Your task to perform on an android device: check android version Image 0: 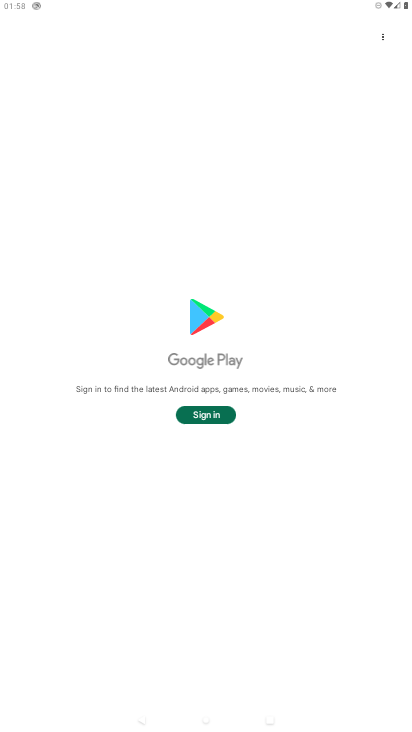
Step 0: press home button
Your task to perform on an android device: check android version Image 1: 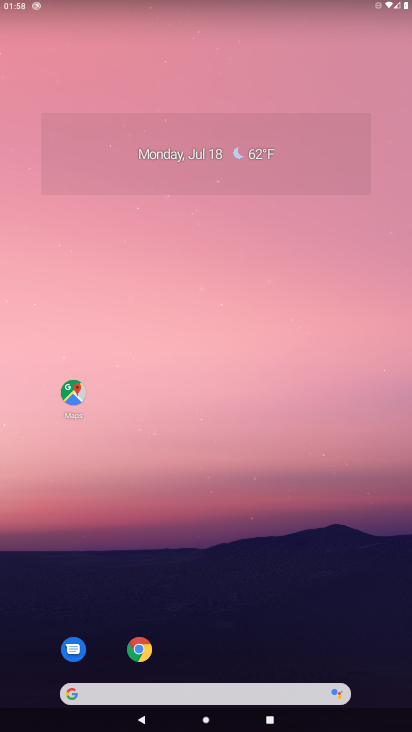
Step 1: drag from (24, 692) to (158, 142)
Your task to perform on an android device: check android version Image 2: 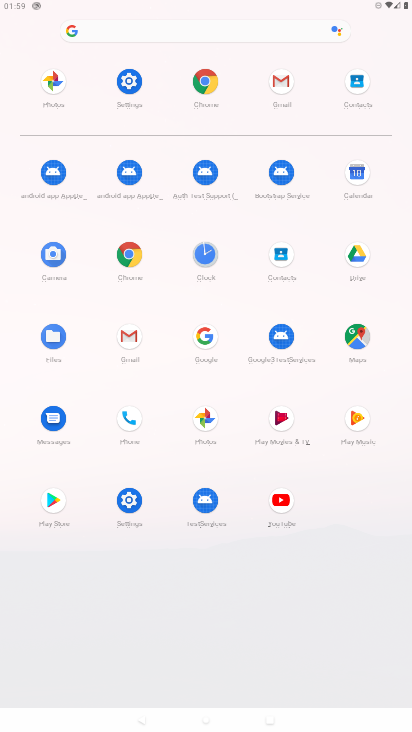
Step 2: click (132, 493)
Your task to perform on an android device: check android version Image 3: 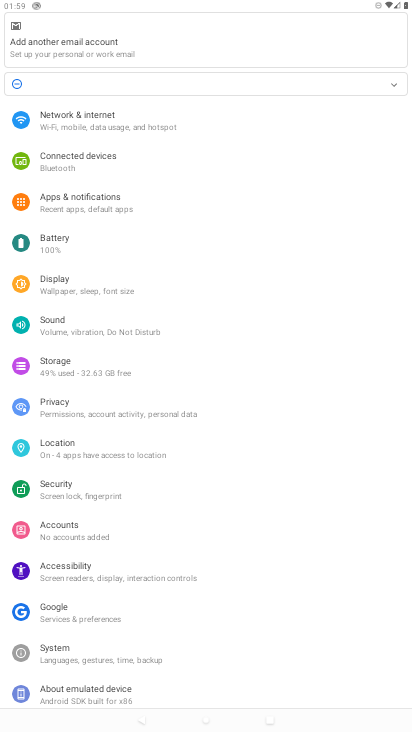
Step 3: click (64, 692)
Your task to perform on an android device: check android version Image 4: 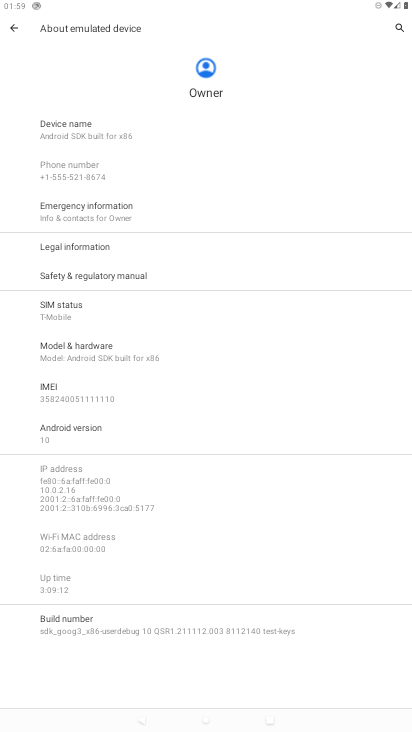
Step 4: click (74, 430)
Your task to perform on an android device: check android version Image 5: 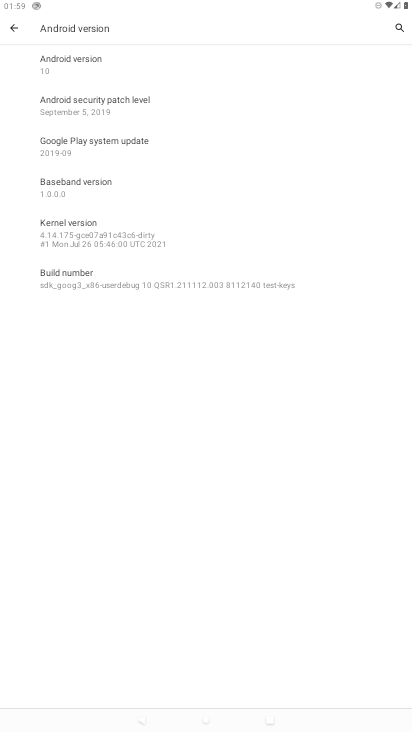
Step 5: task complete